Your task to perform on an android device: Go to internet settings Image 0: 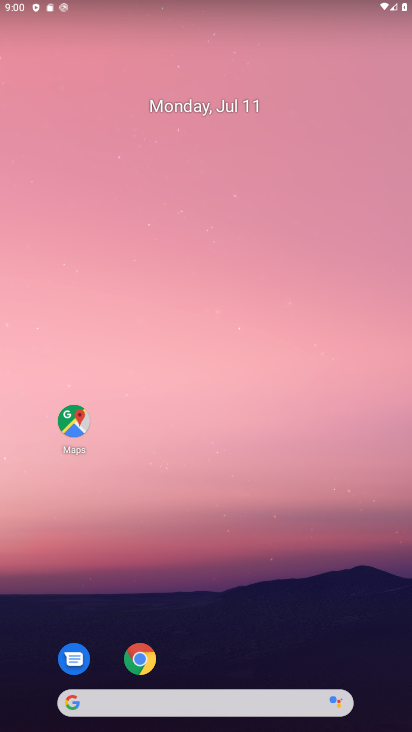
Step 0: drag from (255, 726) to (227, 150)
Your task to perform on an android device: Go to internet settings Image 1: 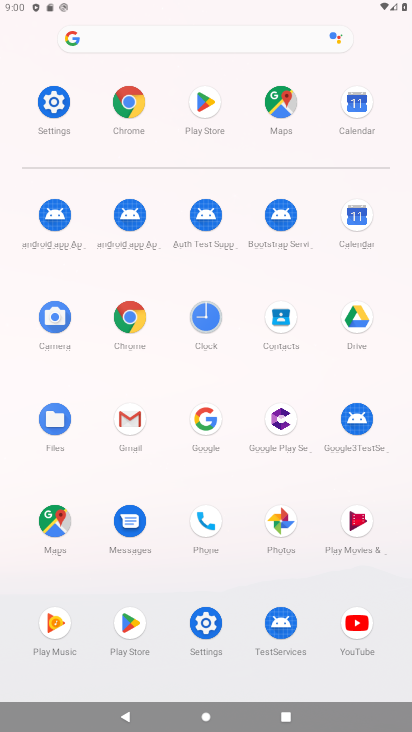
Step 1: click (51, 94)
Your task to perform on an android device: Go to internet settings Image 2: 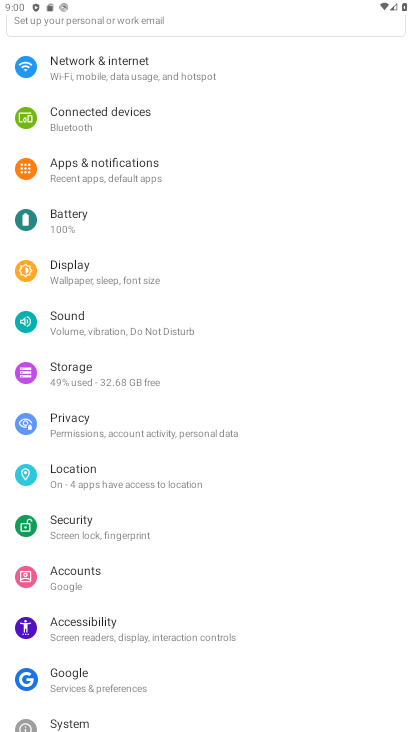
Step 2: click (131, 77)
Your task to perform on an android device: Go to internet settings Image 3: 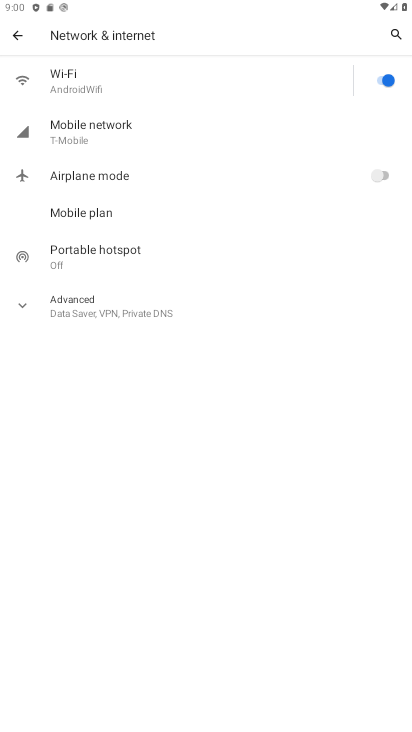
Step 3: task complete